Your task to perform on an android device: turn off wifi Image 0: 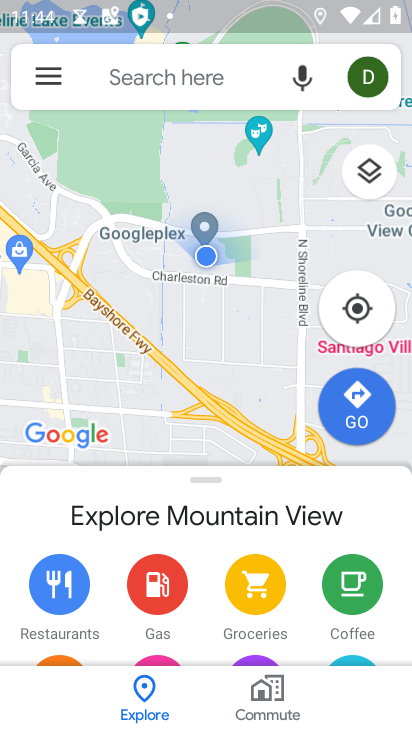
Step 0: press home button
Your task to perform on an android device: turn off wifi Image 1: 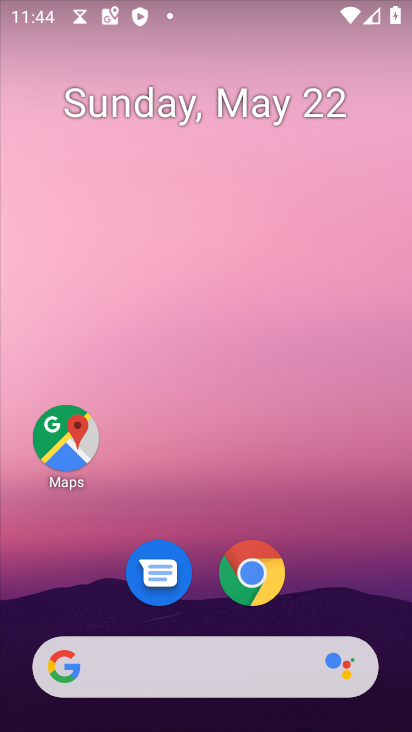
Step 1: drag from (191, 645) to (271, 234)
Your task to perform on an android device: turn off wifi Image 2: 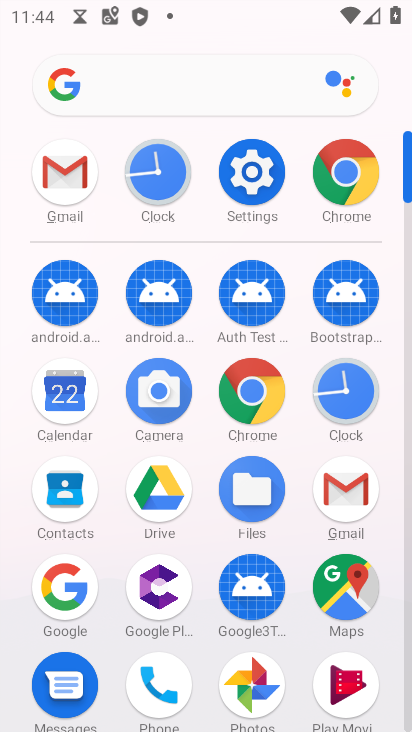
Step 2: click (242, 173)
Your task to perform on an android device: turn off wifi Image 3: 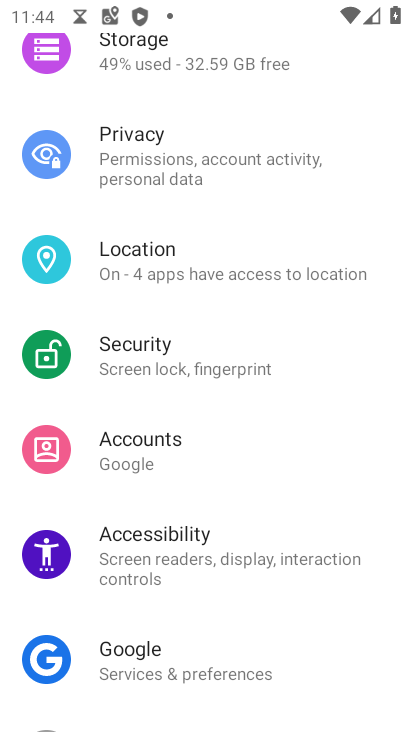
Step 3: drag from (294, 106) to (236, 618)
Your task to perform on an android device: turn off wifi Image 4: 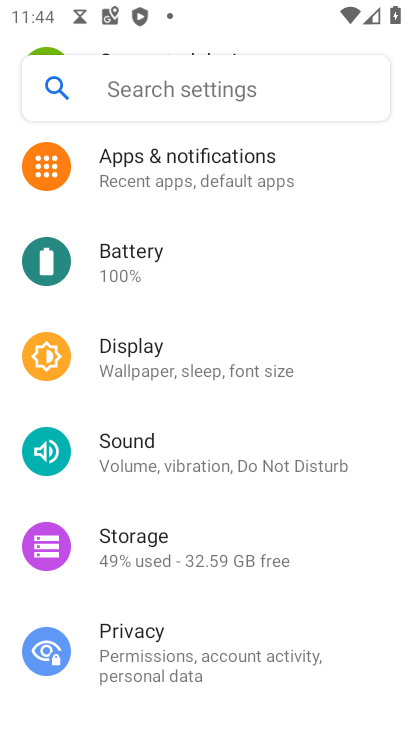
Step 4: drag from (256, 244) to (211, 655)
Your task to perform on an android device: turn off wifi Image 5: 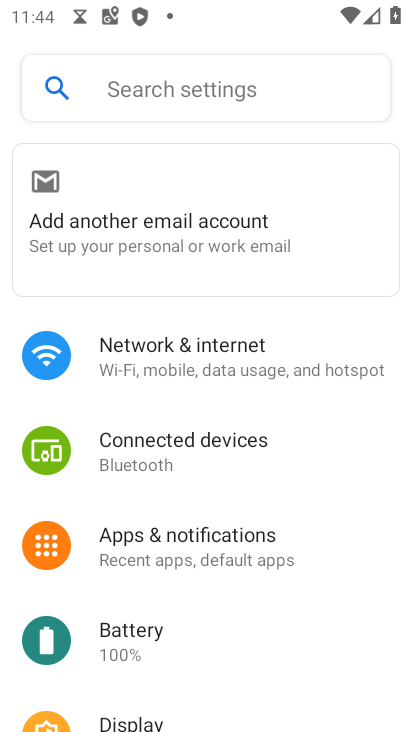
Step 5: click (201, 362)
Your task to perform on an android device: turn off wifi Image 6: 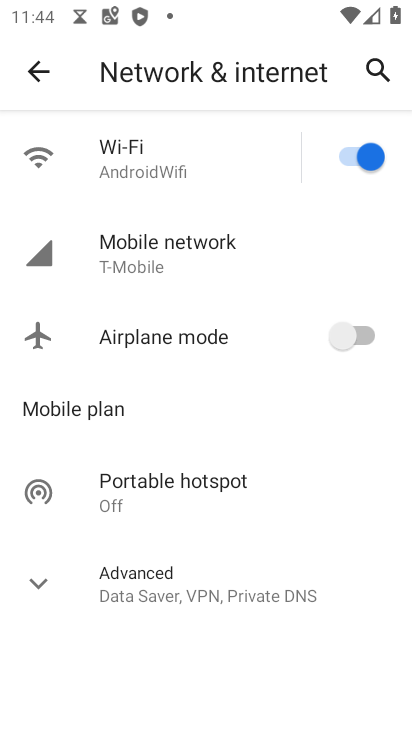
Step 6: click (337, 159)
Your task to perform on an android device: turn off wifi Image 7: 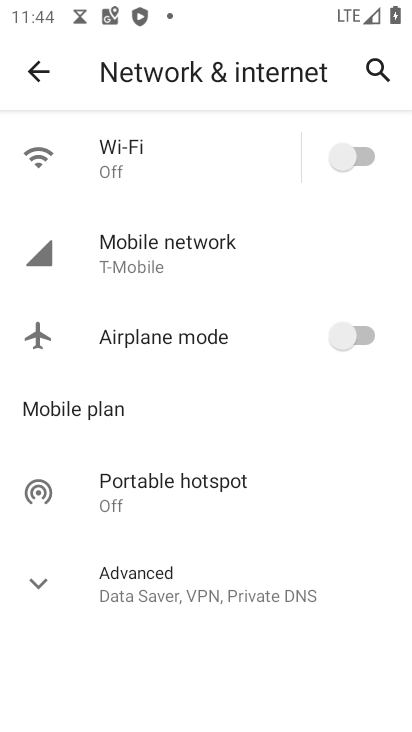
Step 7: task complete